Your task to perform on an android device: turn off airplane mode Image 0: 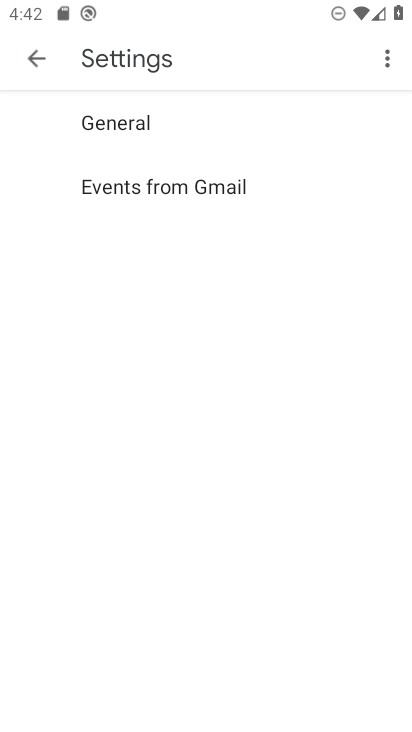
Step 0: press home button
Your task to perform on an android device: turn off airplane mode Image 1: 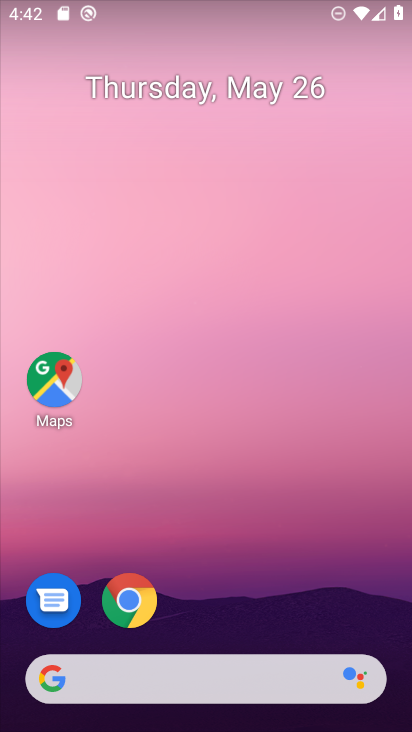
Step 1: drag from (196, 632) to (230, 14)
Your task to perform on an android device: turn off airplane mode Image 2: 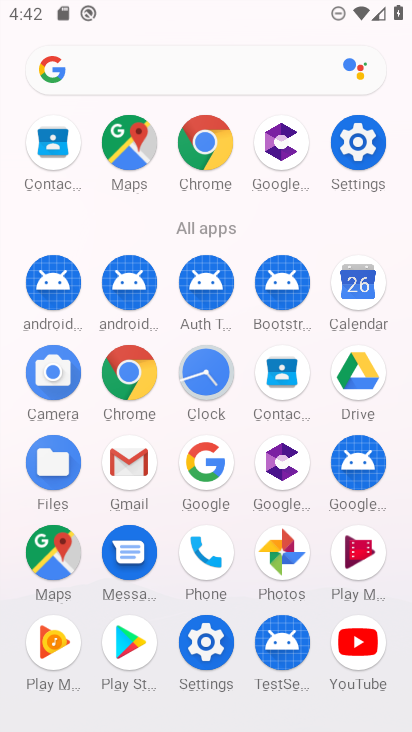
Step 2: click (203, 644)
Your task to perform on an android device: turn off airplane mode Image 3: 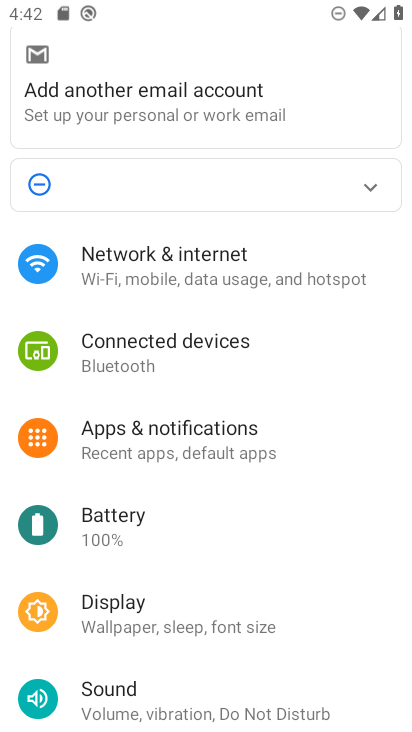
Step 3: click (178, 290)
Your task to perform on an android device: turn off airplane mode Image 4: 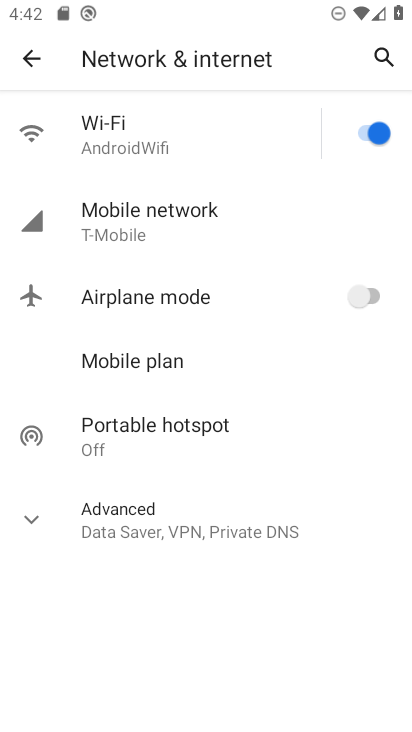
Step 4: task complete